Your task to perform on an android device: Show me the alarms in the clock app Image 0: 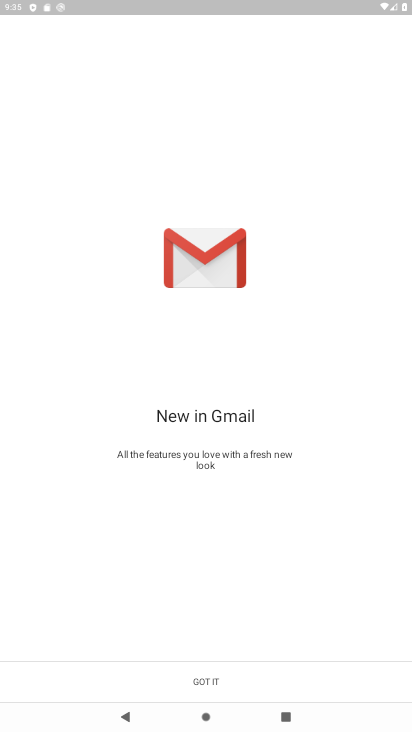
Step 0: press home button
Your task to perform on an android device: Show me the alarms in the clock app Image 1: 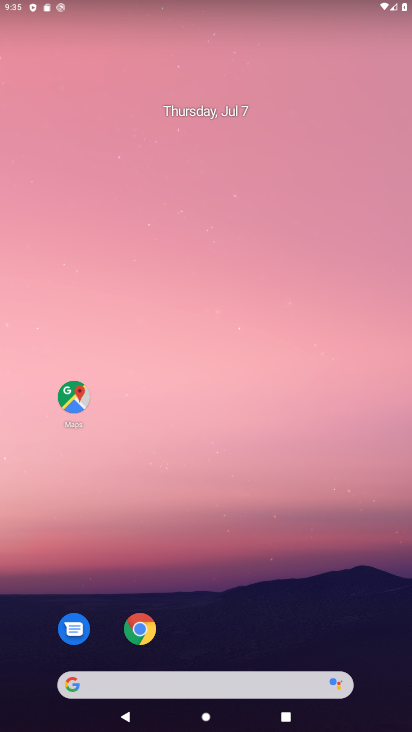
Step 1: drag from (140, 485) to (221, 103)
Your task to perform on an android device: Show me the alarms in the clock app Image 2: 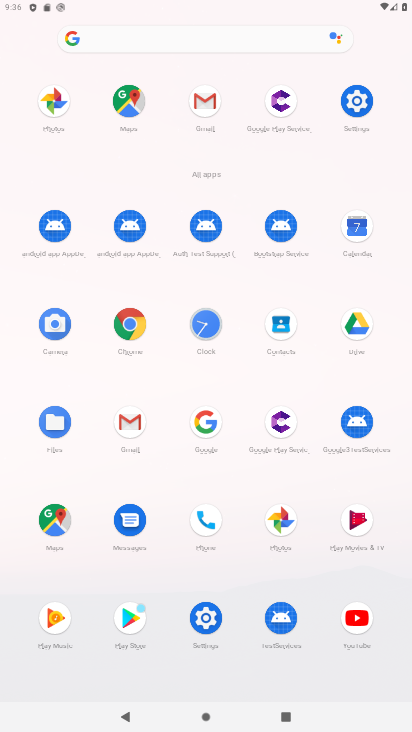
Step 2: click (192, 323)
Your task to perform on an android device: Show me the alarms in the clock app Image 3: 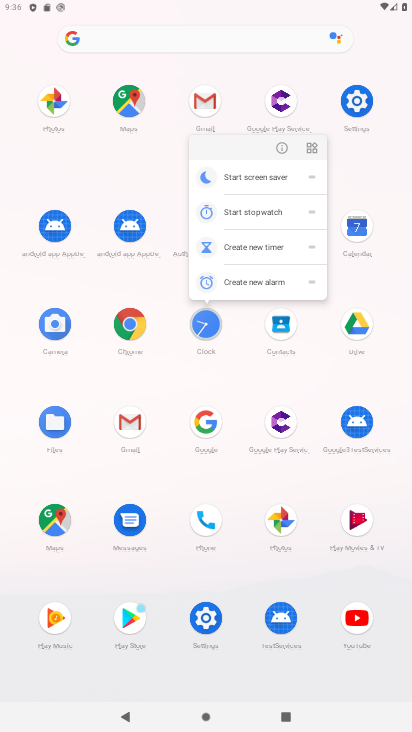
Step 3: click (202, 339)
Your task to perform on an android device: Show me the alarms in the clock app Image 4: 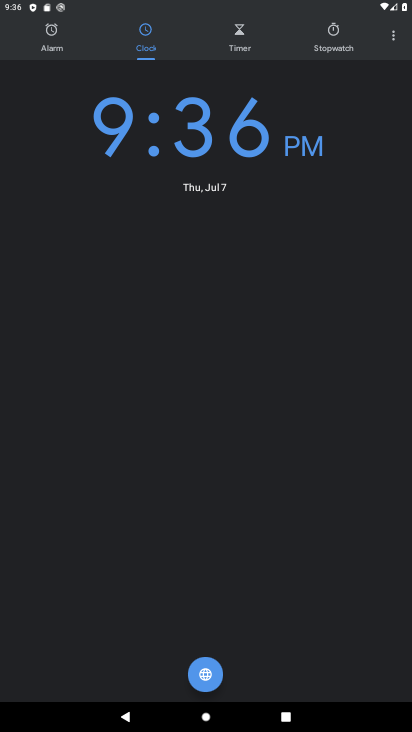
Step 4: click (42, 49)
Your task to perform on an android device: Show me the alarms in the clock app Image 5: 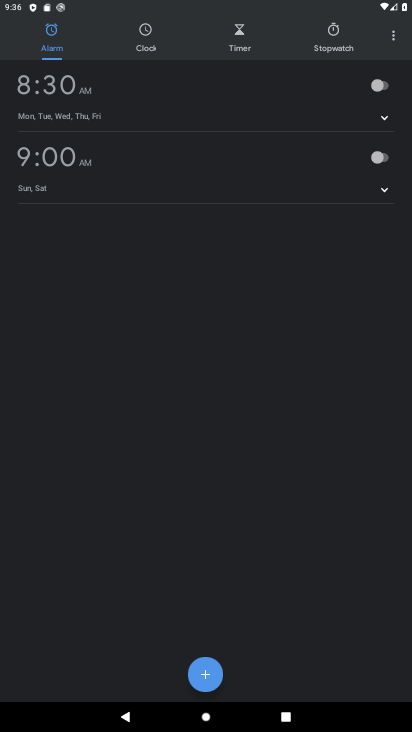
Step 5: task complete